Your task to perform on an android device: check data usage Image 0: 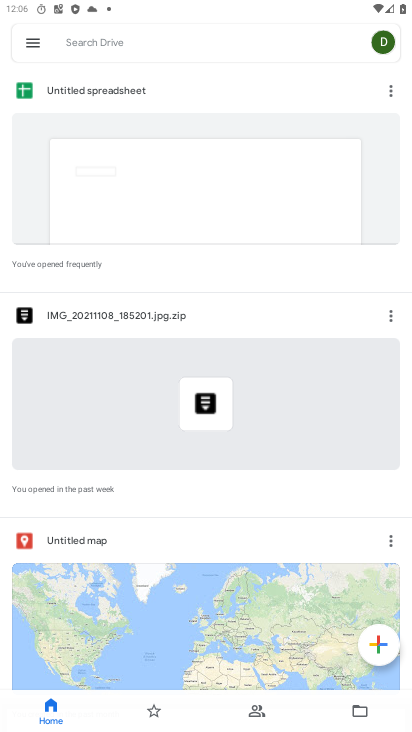
Step 0: press home button
Your task to perform on an android device: check data usage Image 1: 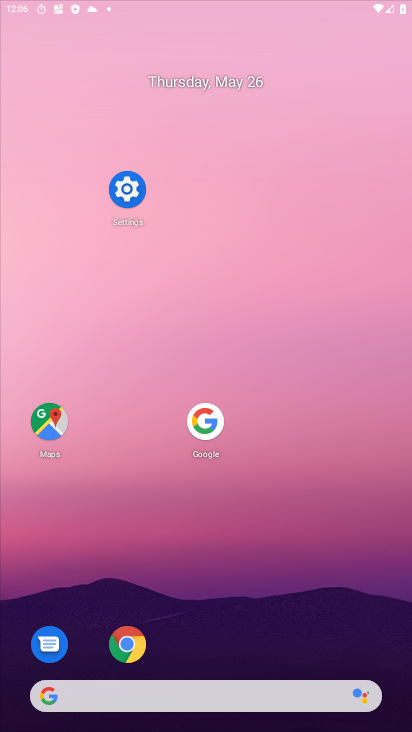
Step 1: drag from (220, 642) to (271, 68)
Your task to perform on an android device: check data usage Image 2: 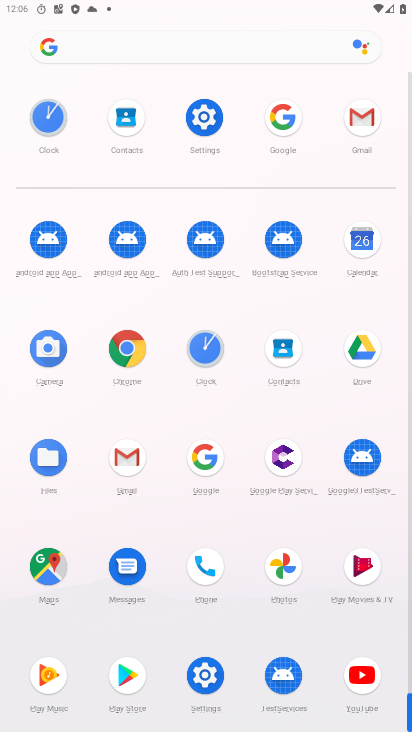
Step 2: click (195, 117)
Your task to perform on an android device: check data usage Image 3: 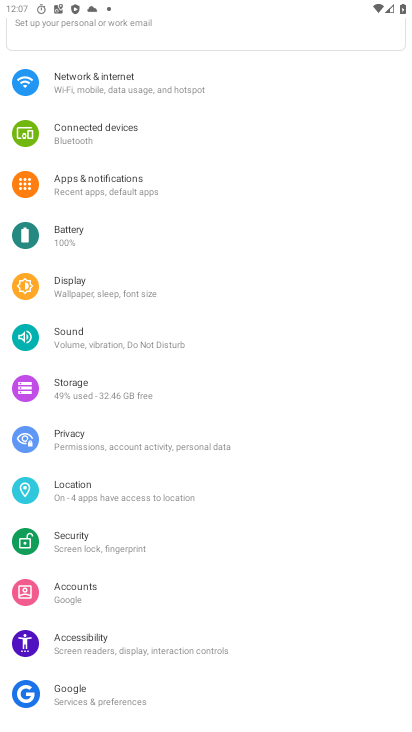
Step 3: drag from (139, 142) to (203, 452)
Your task to perform on an android device: check data usage Image 4: 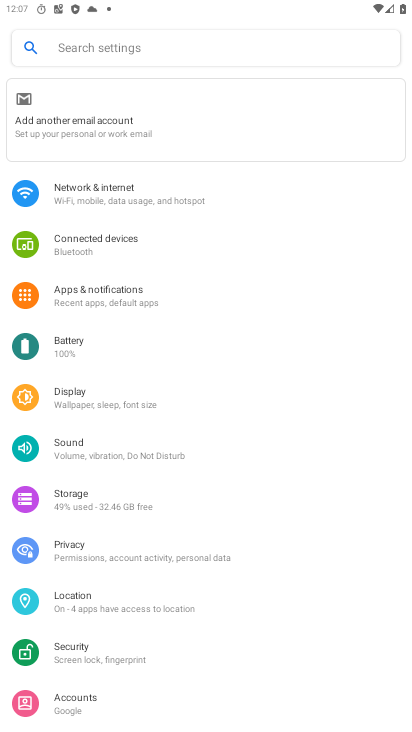
Step 4: click (91, 187)
Your task to perform on an android device: check data usage Image 5: 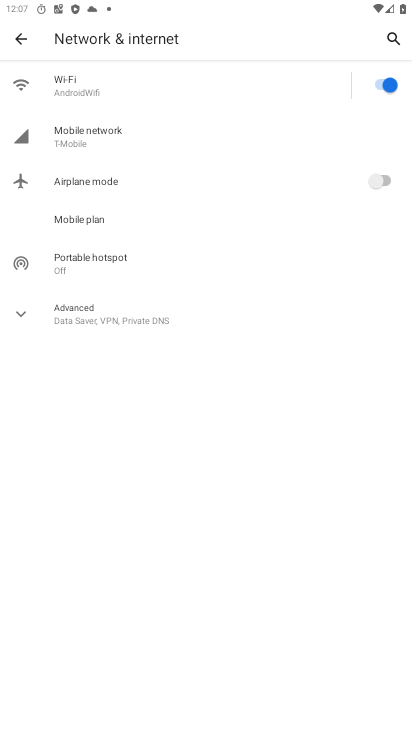
Step 5: click (122, 144)
Your task to perform on an android device: check data usage Image 6: 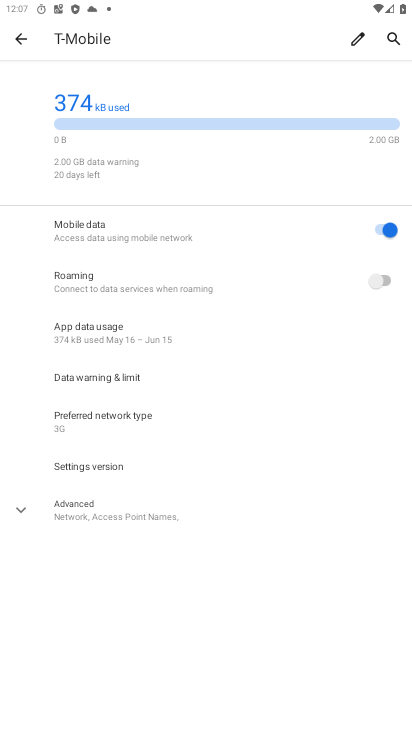
Step 6: task complete